Your task to perform on an android device: Search for "amazon basics triple a" on walmart, select the first entry, and add it to the cart. Image 0: 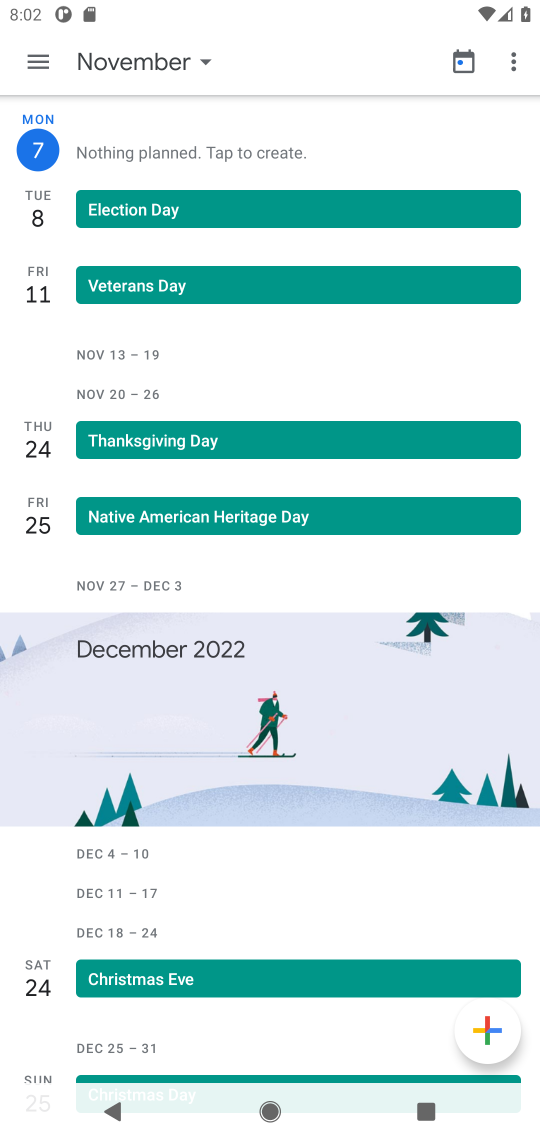
Step 0: press home button
Your task to perform on an android device: Search for "amazon basics triple a" on walmart, select the first entry, and add it to the cart. Image 1: 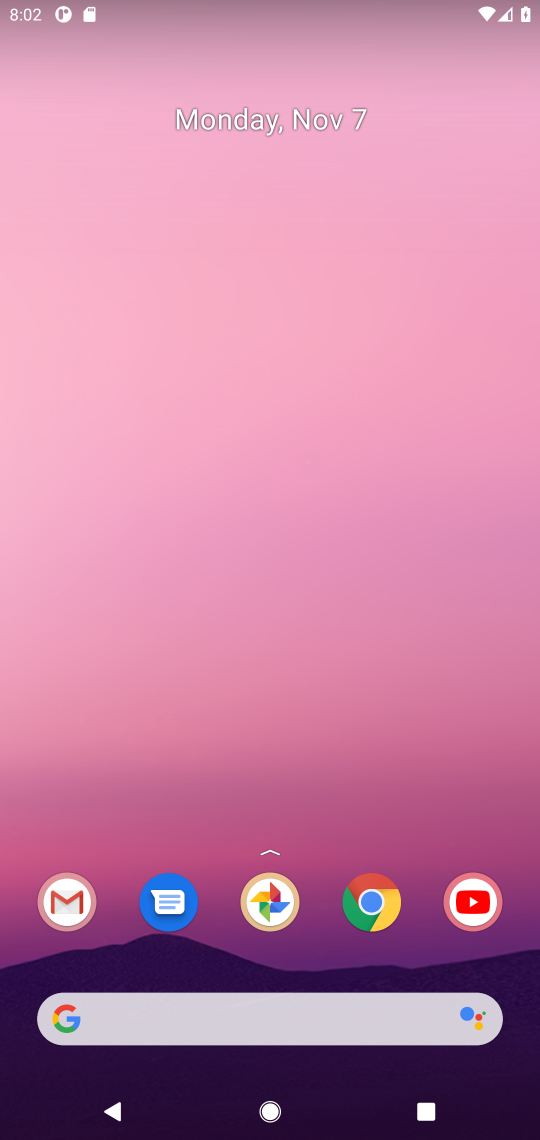
Step 1: click (380, 903)
Your task to perform on an android device: Search for "amazon basics triple a" on walmart, select the first entry, and add it to the cart. Image 2: 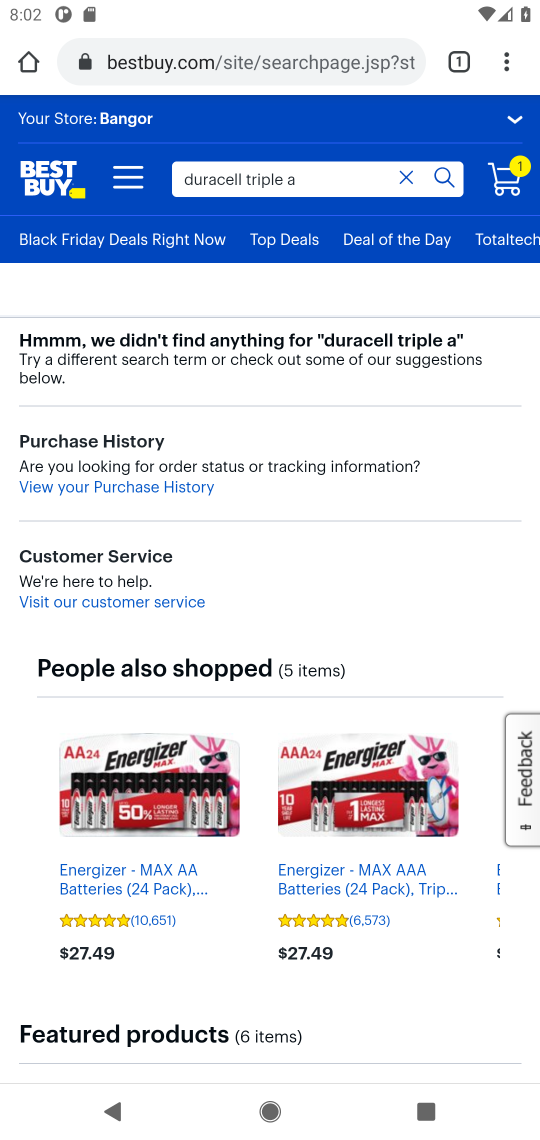
Step 2: click (202, 76)
Your task to perform on an android device: Search for "amazon basics triple a" on walmart, select the first entry, and add it to the cart. Image 3: 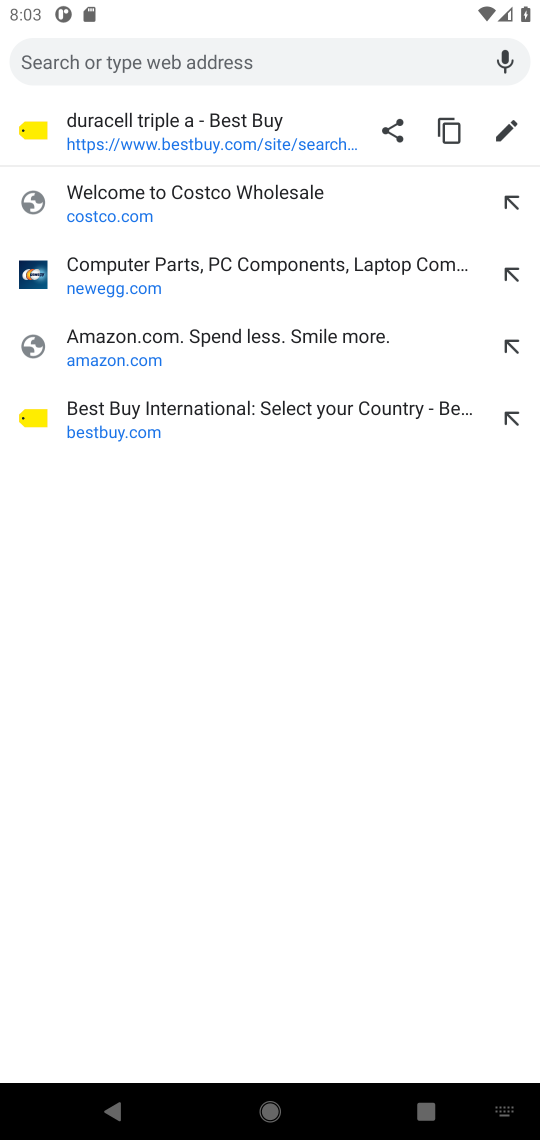
Step 3: type "walmart.com"
Your task to perform on an android device: Search for "amazon basics triple a" on walmart, select the first entry, and add it to the cart. Image 4: 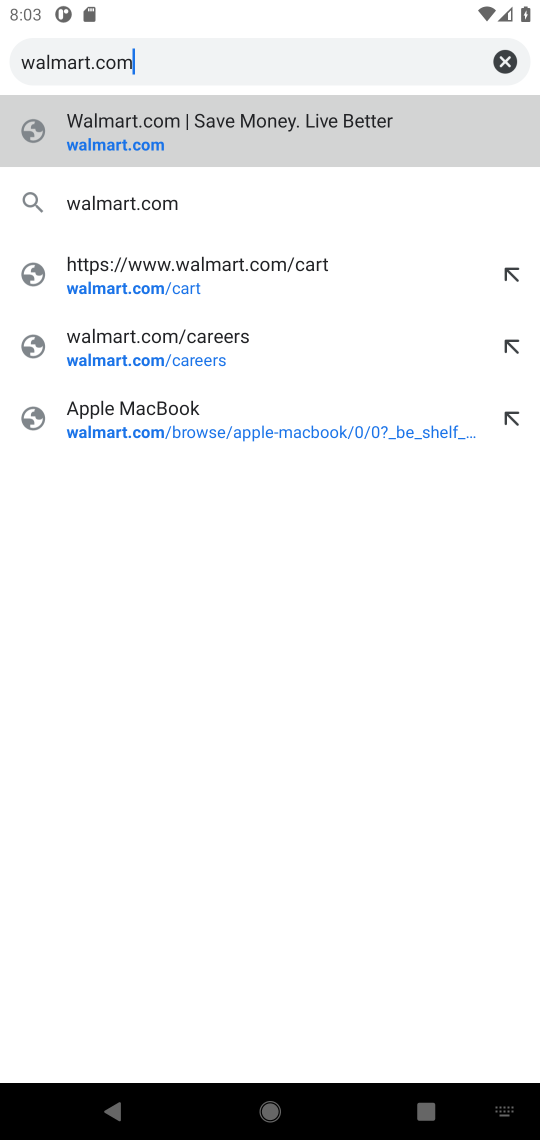
Step 4: click (128, 143)
Your task to perform on an android device: Search for "amazon basics triple a" on walmart, select the first entry, and add it to the cart. Image 5: 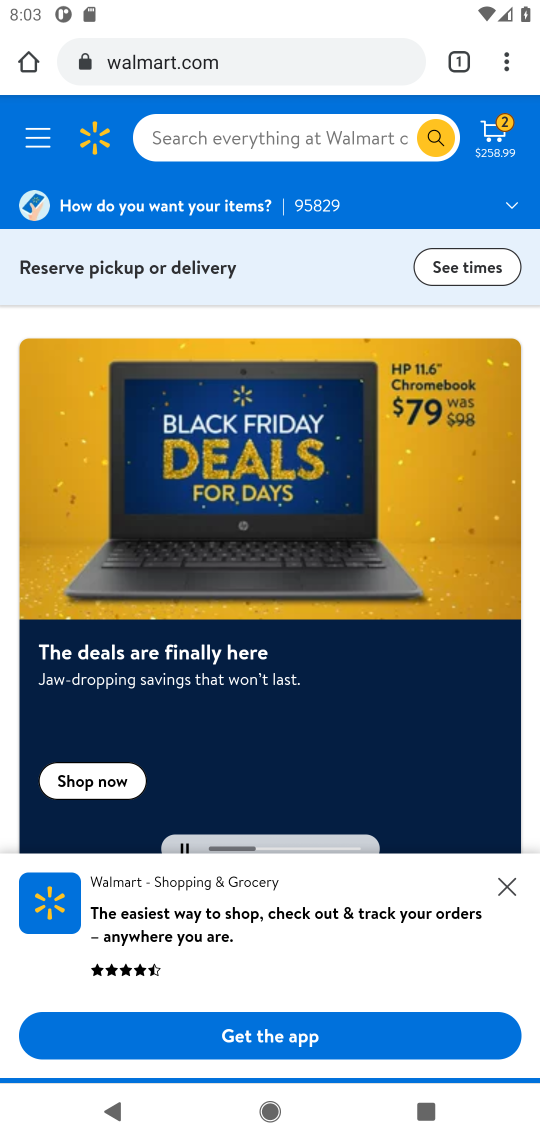
Step 5: click (205, 131)
Your task to perform on an android device: Search for "amazon basics triple a" on walmart, select the first entry, and add it to the cart. Image 6: 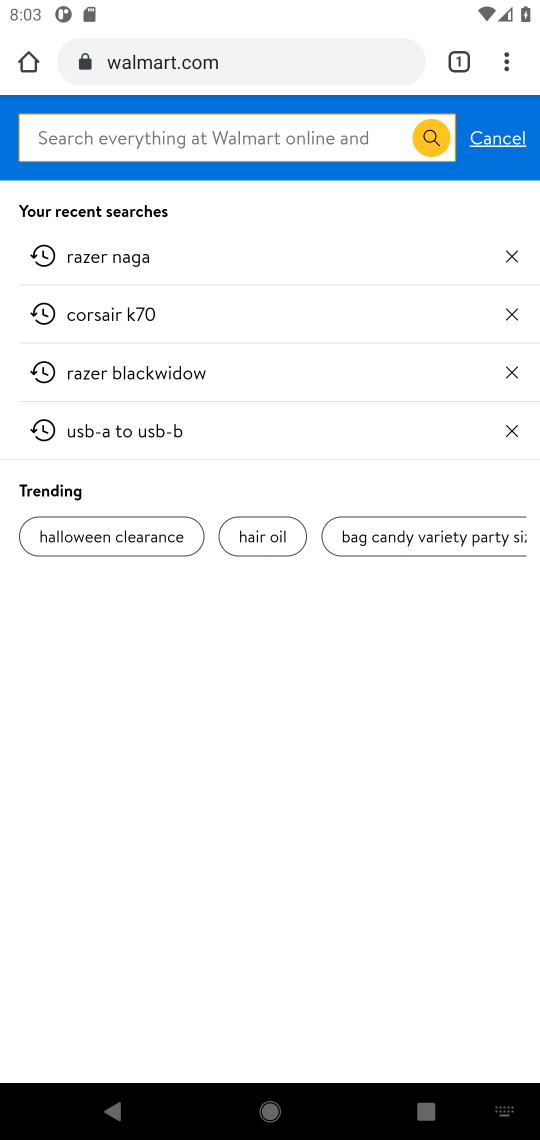
Step 6: type "amazon basics triple a"
Your task to perform on an android device: Search for "amazon basics triple a" on walmart, select the first entry, and add it to the cart. Image 7: 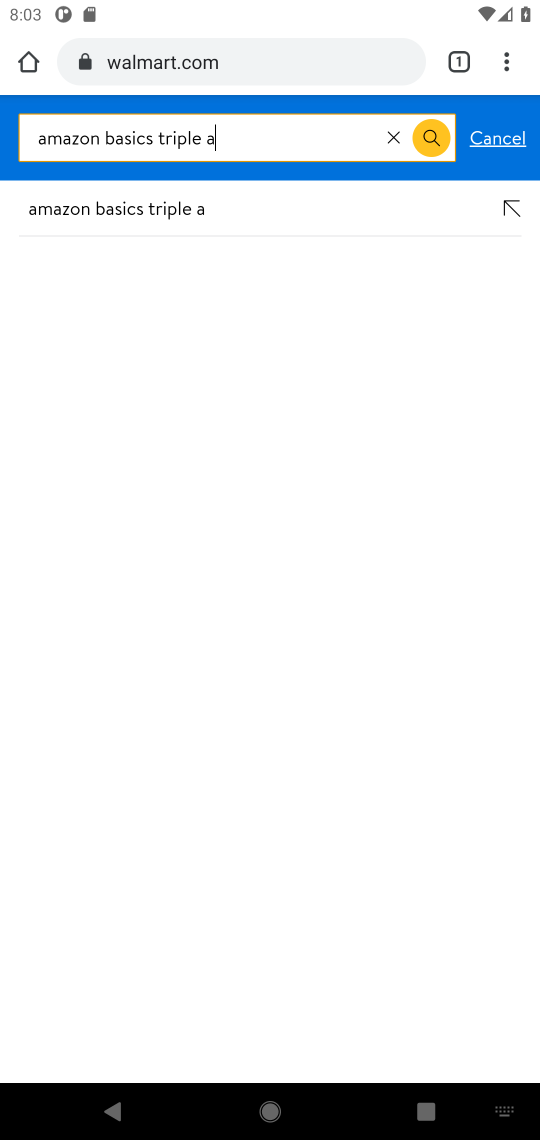
Step 7: click (148, 205)
Your task to perform on an android device: Search for "amazon basics triple a" on walmart, select the first entry, and add it to the cart. Image 8: 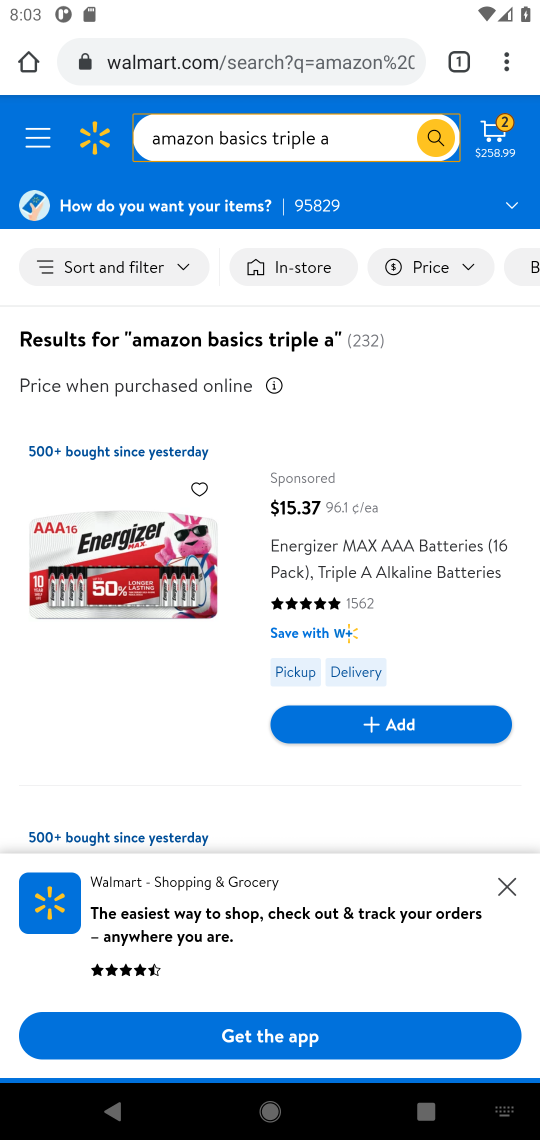
Step 8: click (511, 880)
Your task to perform on an android device: Search for "amazon basics triple a" on walmart, select the first entry, and add it to the cart. Image 9: 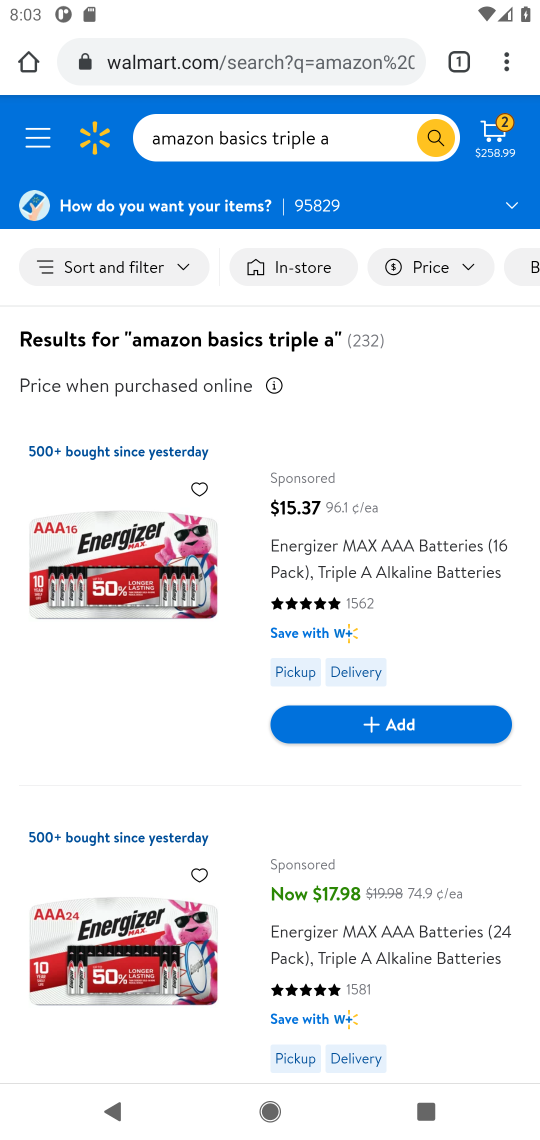
Step 9: task complete